Your task to perform on an android device: Check the news Image 0: 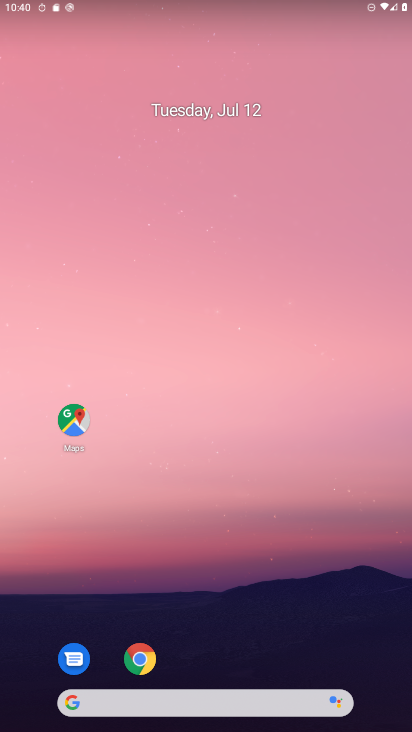
Step 0: drag from (2, 260) to (165, 268)
Your task to perform on an android device: Check the news Image 1: 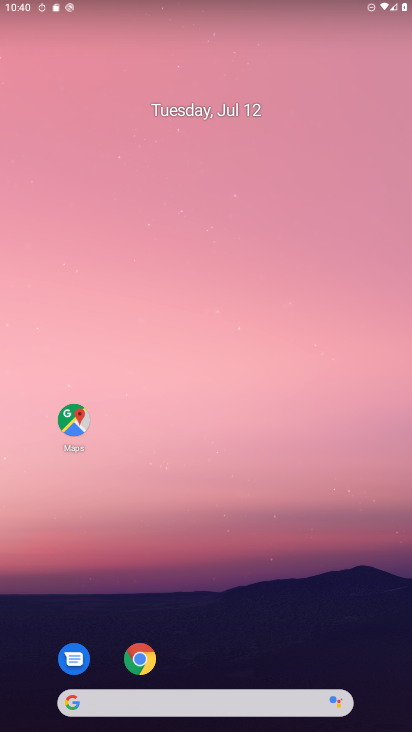
Step 1: click (357, 269)
Your task to perform on an android device: Check the news Image 2: 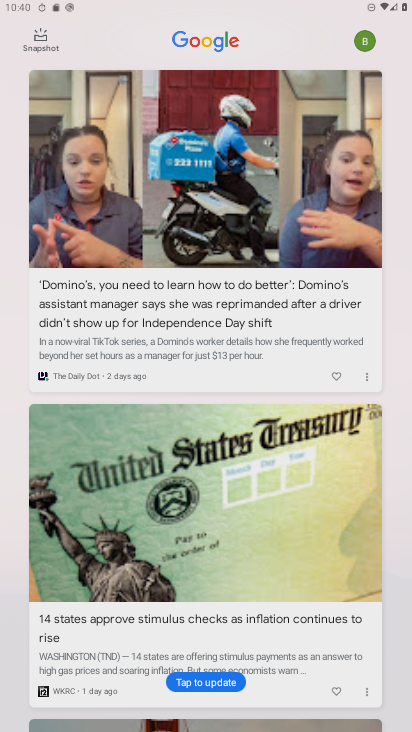
Step 2: task complete